Your task to perform on an android device: turn notification dots on Image 0: 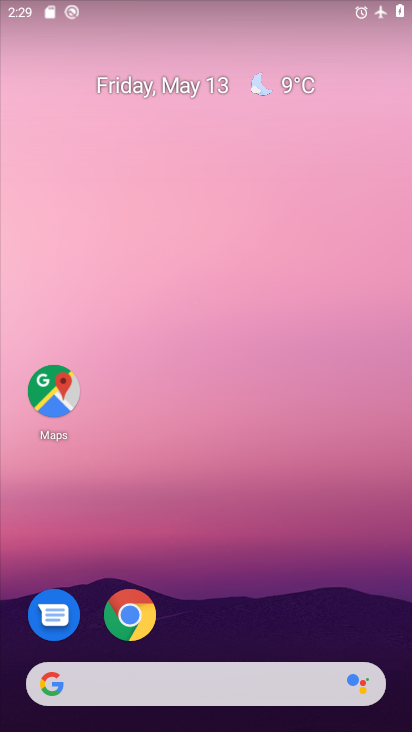
Step 0: drag from (307, 509) to (288, 45)
Your task to perform on an android device: turn notification dots on Image 1: 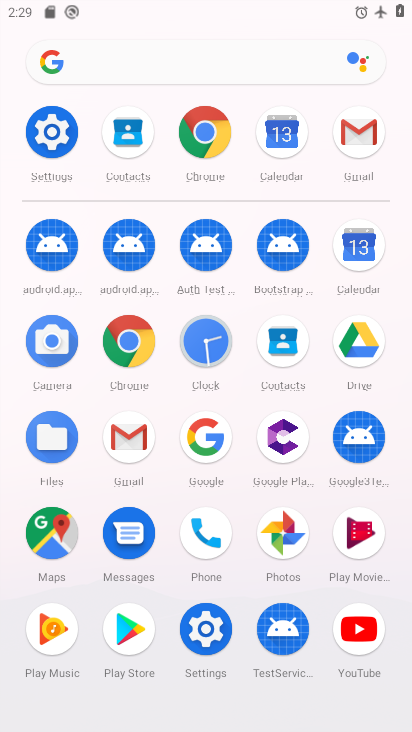
Step 1: click (38, 126)
Your task to perform on an android device: turn notification dots on Image 2: 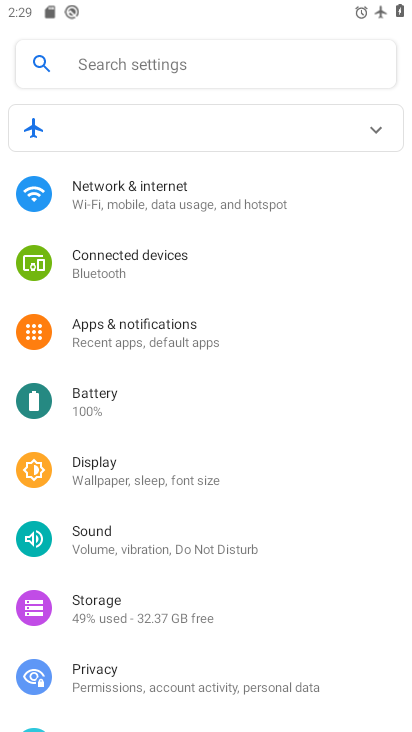
Step 2: click (142, 325)
Your task to perform on an android device: turn notification dots on Image 3: 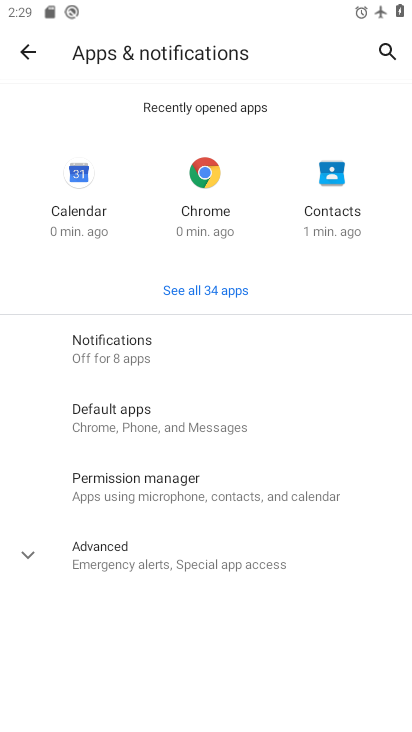
Step 3: click (143, 347)
Your task to perform on an android device: turn notification dots on Image 4: 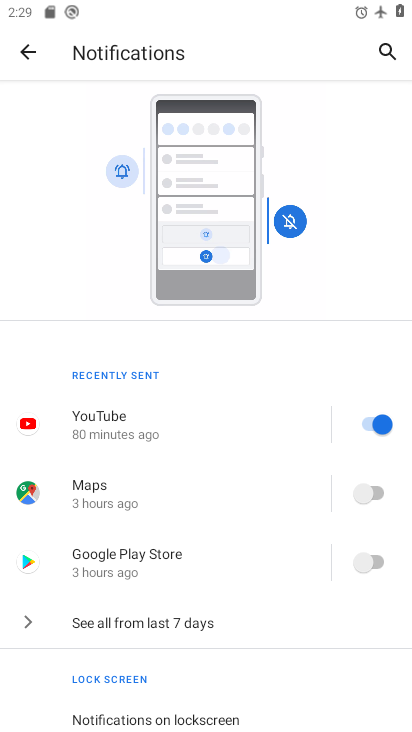
Step 4: drag from (207, 660) to (273, 116)
Your task to perform on an android device: turn notification dots on Image 5: 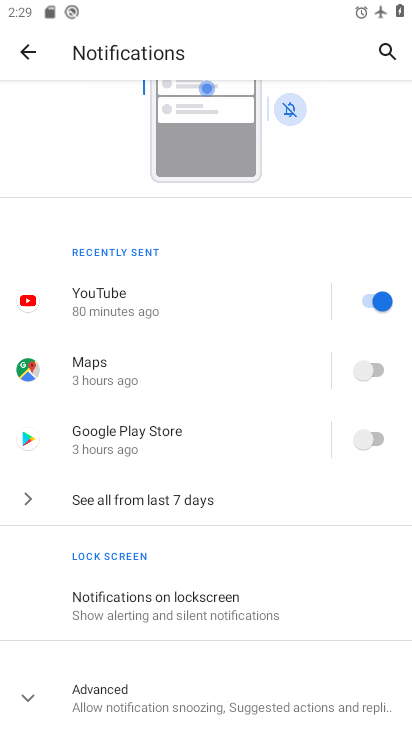
Step 5: click (24, 691)
Your task to perform on an android device: turn notification dots on Image 6: 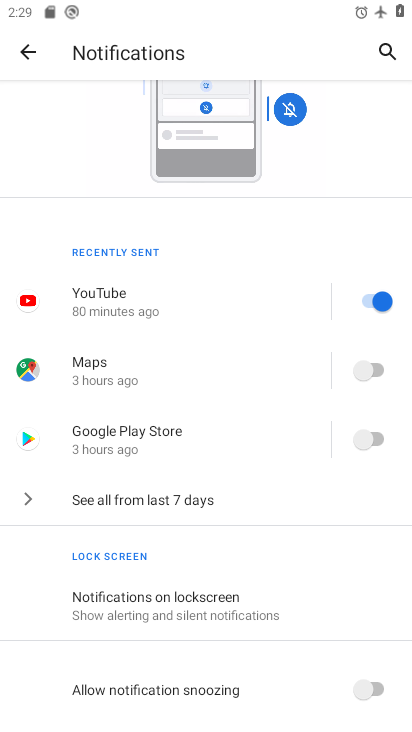
Step 6: task complete